Your task to perform on an android device: Go to Amazon Image 0: 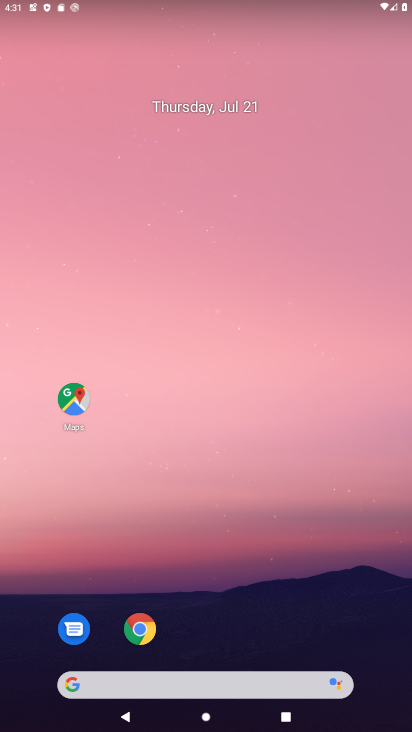
Step 0: drag from (259, 600) to (157, 118)
Your task to perform on an android device: Go to Amazon Image 1: 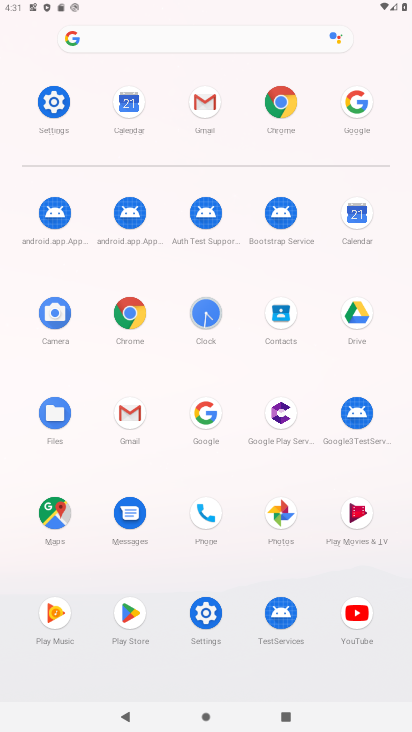
Step 1: click (272, 107)
Your task to perform on an android device: Go to Amazon Image 2: 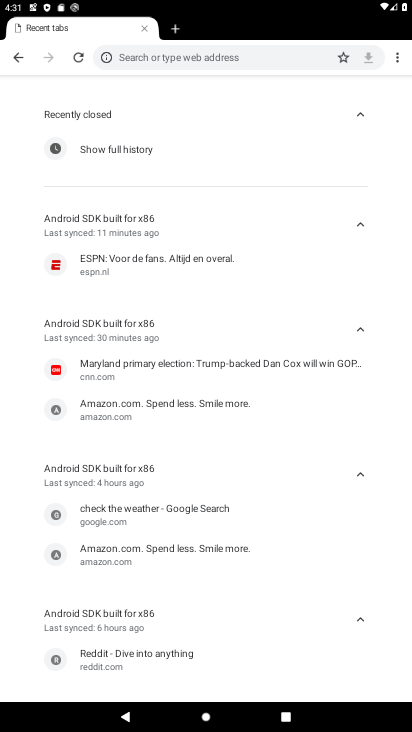
Step 2: click (20, 54)
Your task to perform on an android device: Go to Amazon Image 3: 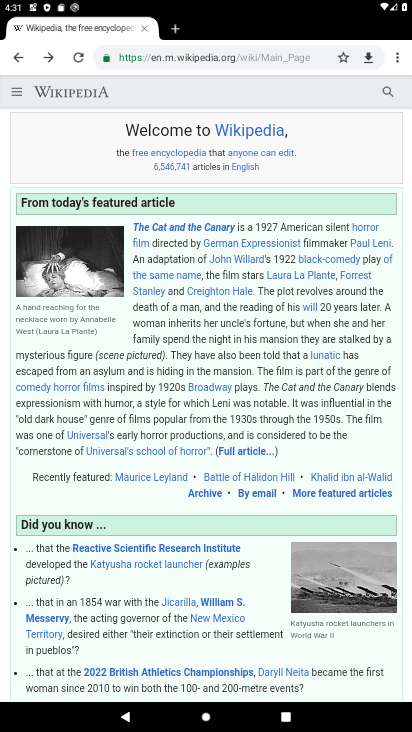
Step 3: click (18, 57)
Your task to perform on an android device: Go to Amazon Image 4: 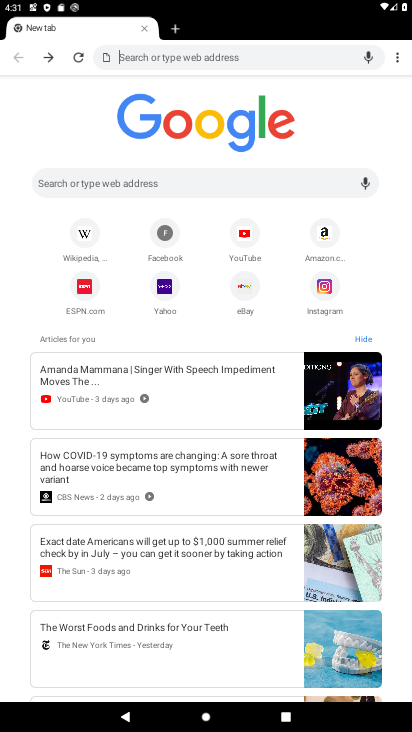
Step 4: click (333, 243)
Your task to perform on an android device: Go to Amazon Image 5: 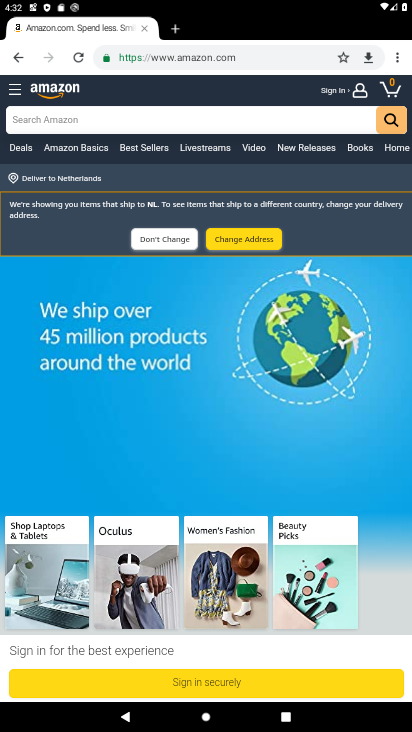
Step 5: task complete